Your task to perform on an android device: Turn off the flashlight Image 0: 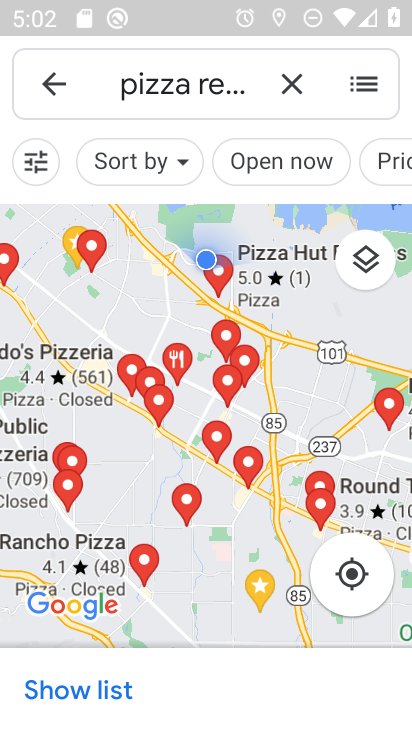
Step 0: drag from (265, 0) to (246, 361)
Your task to perform on an android device: Turn off the flashlight Image 1: 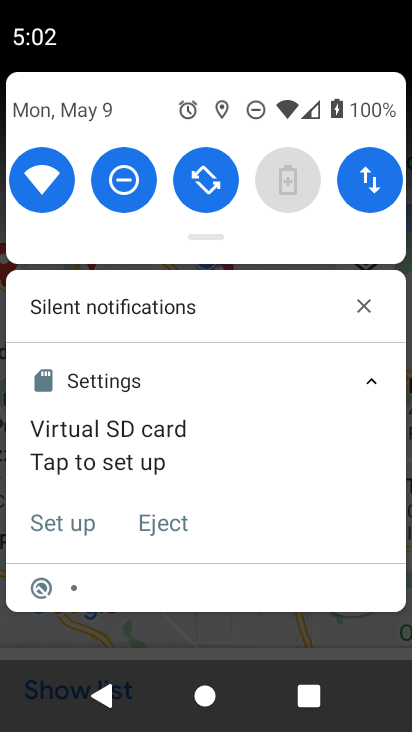
Step 1: task complete